Your task to perform on an android device: Show me the alarms in the clock app Image 0: 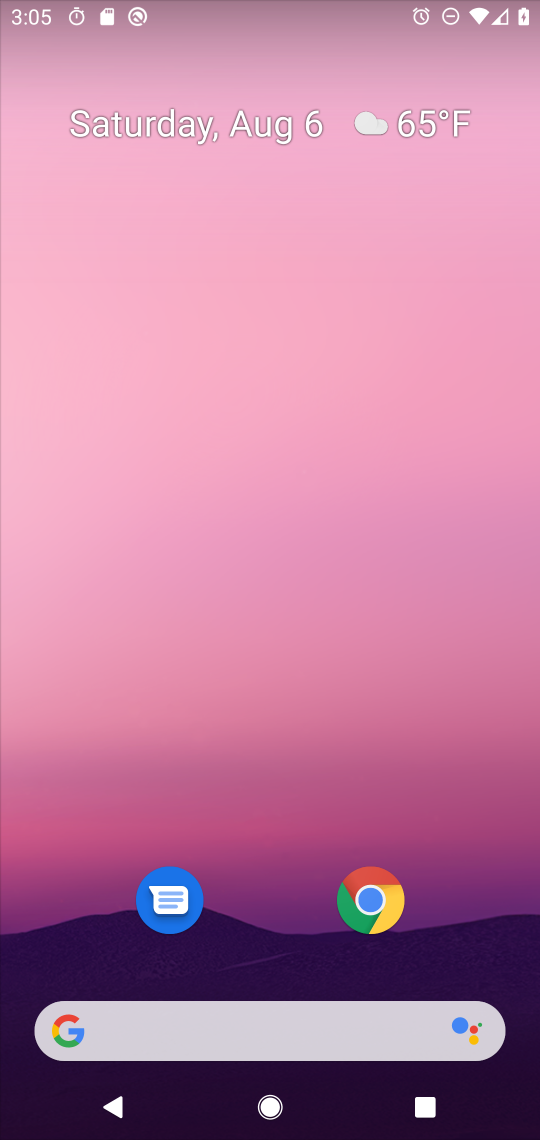
Step 0: drag from (288, 983) to (144, 52)
Your task to perform on an android device: Show me the alarms in the clock app Image 1: 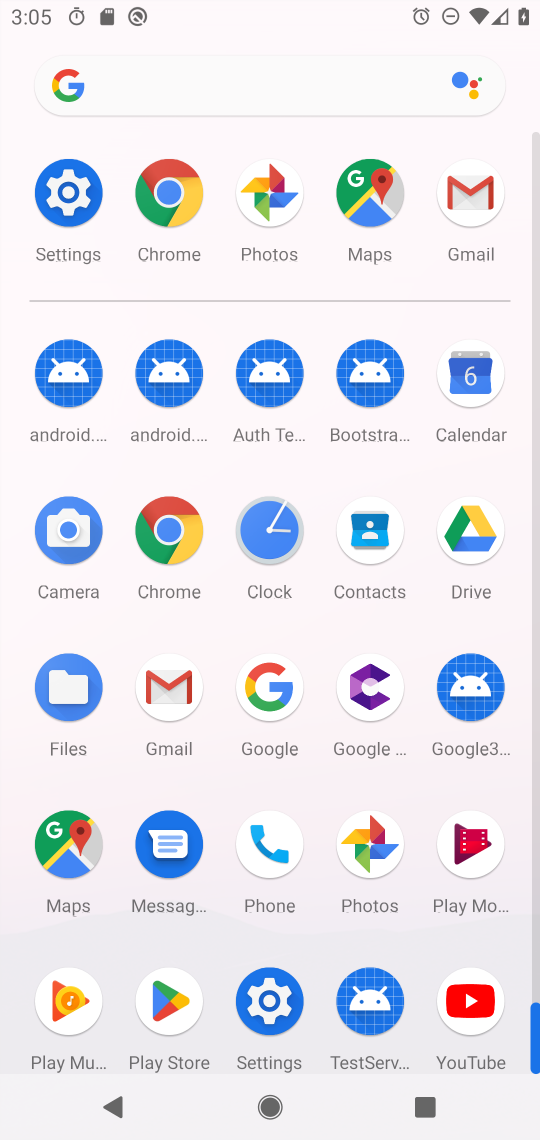
Step 1: click (264, 539)
Your task to perform on an android device: Show me the alarms in the clock app Image 2: 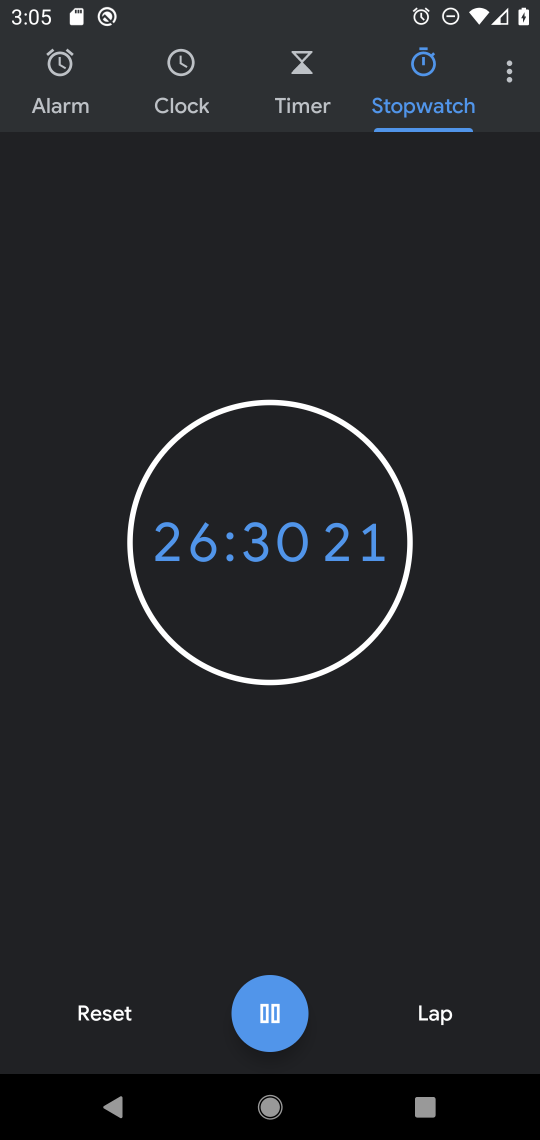
Step 2: click (60, 67)
Your task to perform on an android device: Show me the alarms in the clock app Image 3: 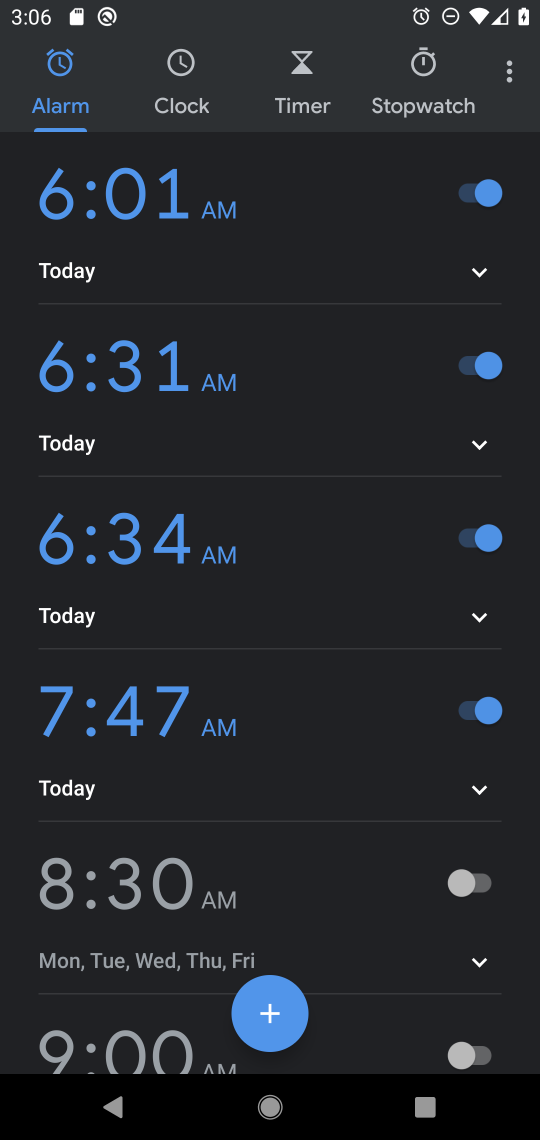
Step 3: task complete